Your task to perform on an android device: Open notification settings Image 0: 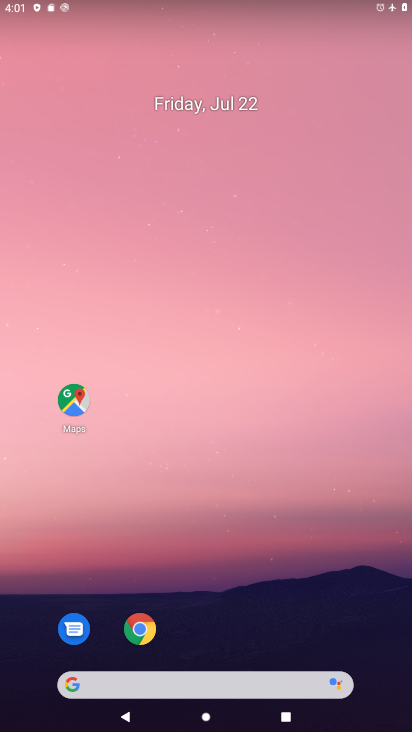
Step 0: drag from (292, 555) to (248, 57)
Your task to perform on an android device: Open notification settings Image 1: 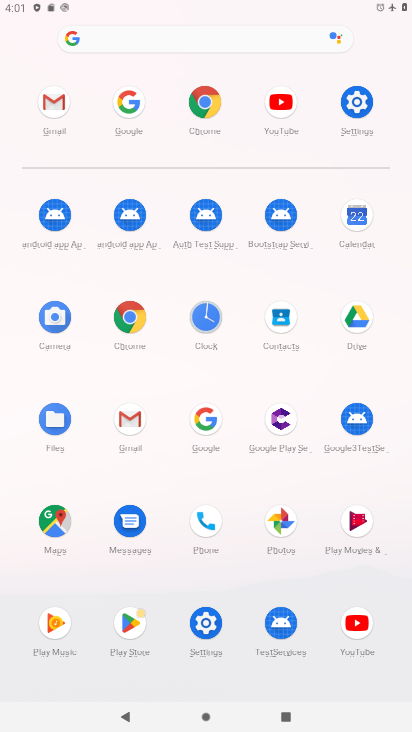
Step 1: click (349, 94)
Your task to perform on an android device: Open notification settings Image 2: 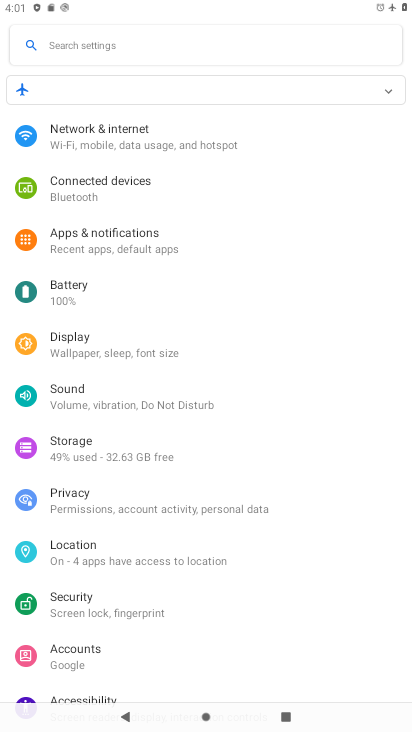
Step 2: click (155, 248)
Your task to perform on an android device: Open notification settings Image 3: 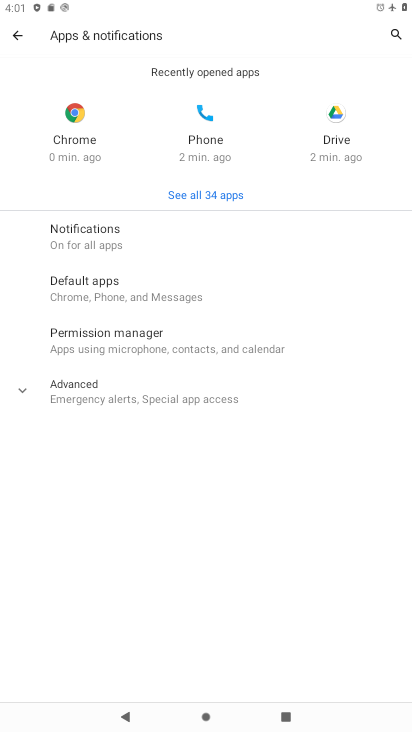
Step 3: click (152, 243)
Your task to perform on an android device: Open notification settings Image 4: 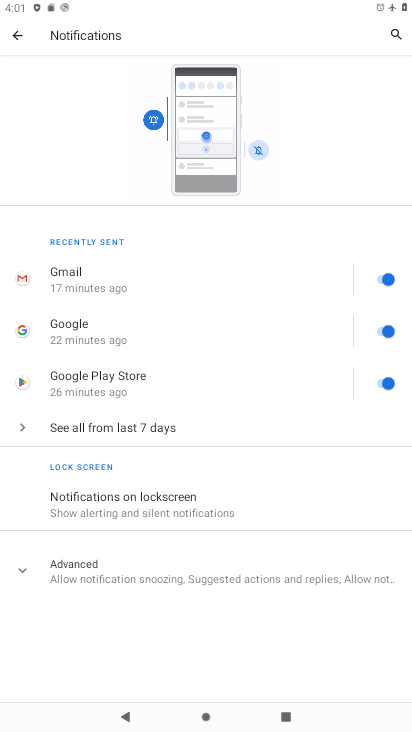
Step 4: task complete